Your task to perform on an android device: turn off smart reply in the gmail app Image 0: 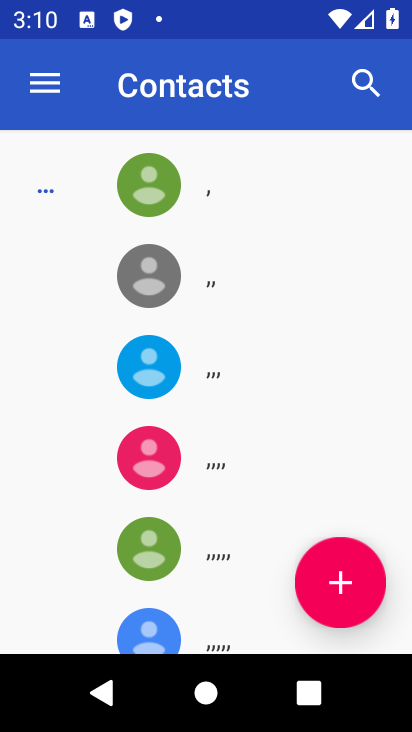
Step 0: task complete